Your task to perform on an android device: Open my contact list Image 0: 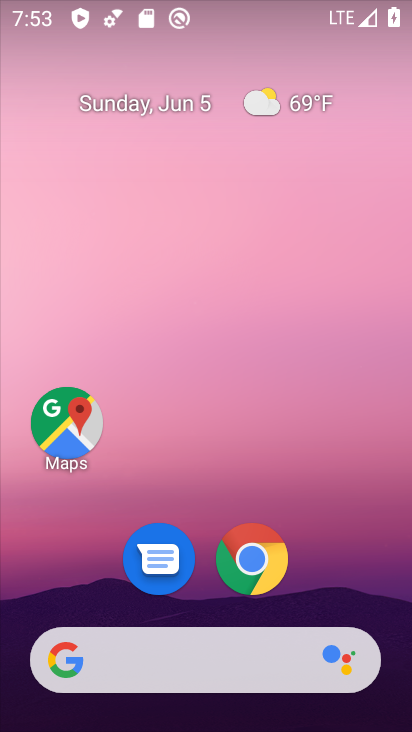
Step 0: drag from (359, 496) to (306, 37)
Your task to perform on an android device: Open my contact list Image 1: 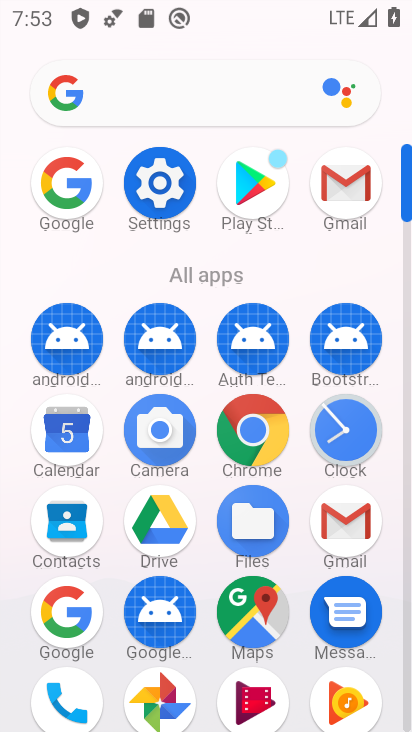
Step 1: click (82, 529)
Your task to perform on an android device: Open my contact list Image 2: 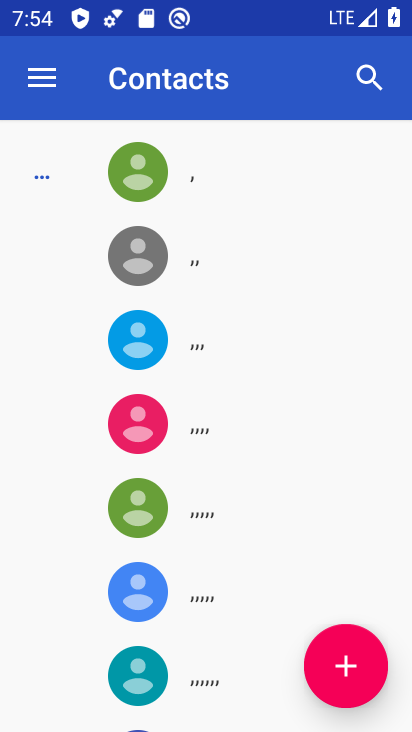
Step 2: task complete